Your task to perform on an android device: Go to settings Image 0: 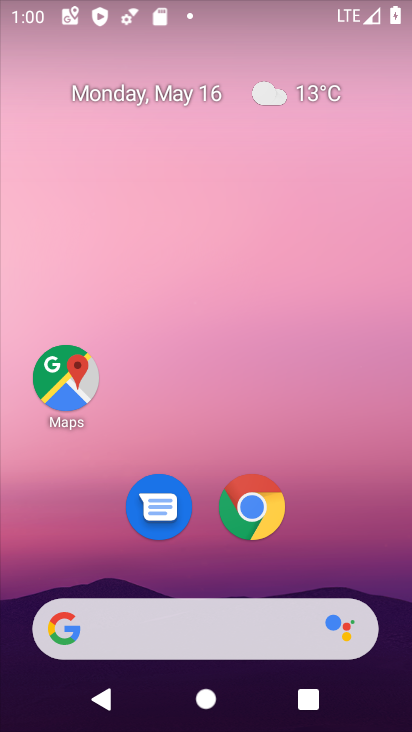
Step 0: drag from (326, 506) to (284, 37)
Your task to perform on an android device: Go to settings Image 1: 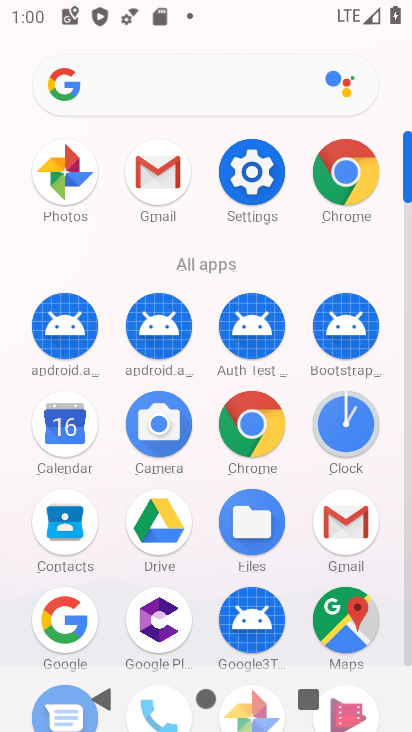
Step 1: click (248, 171)
Your task to perform on an android device: Go to settings Image 2: 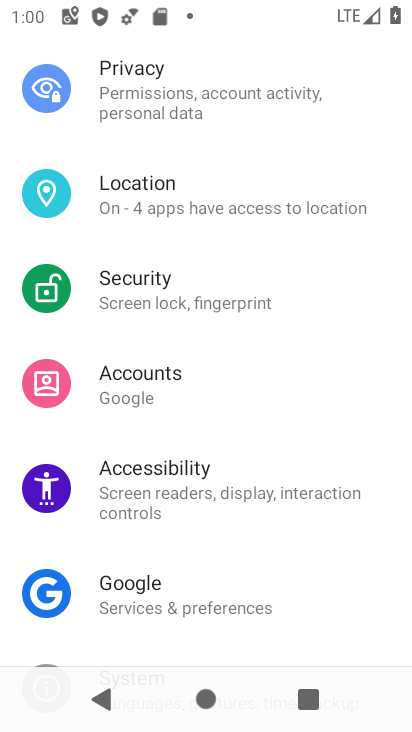
Step 2: task complete